Your task to perform on an android device: What's the weather? Image 0: 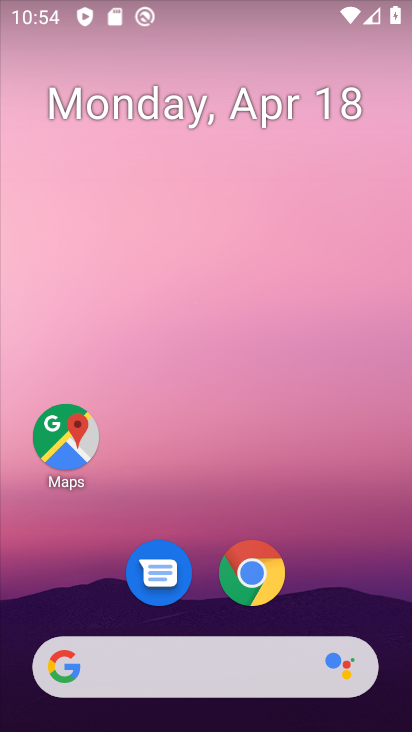
Step 0: drag from (321, 580) to (315, 97)
Your task to perform on an android device: What's the weather? Image 1: 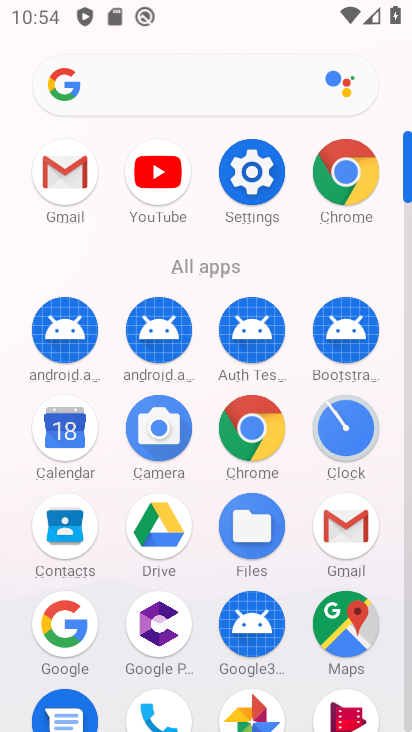
Step 1: click (346, 167)
Your task to perform on an android device: What's the weather? Image 2: 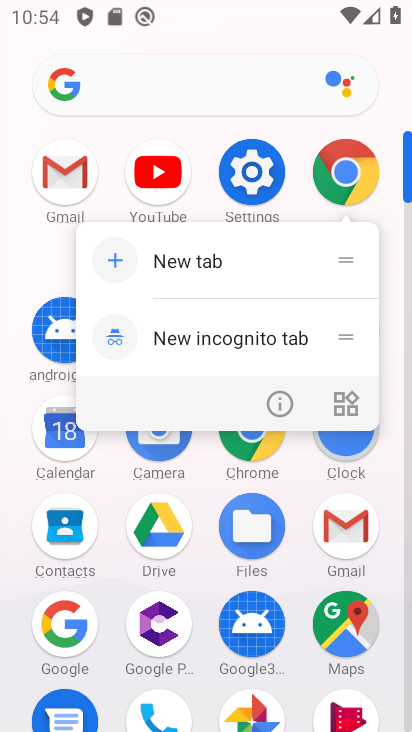
Step 2: click (346, 168)
Your task to perform on an android device: What's the weather? Image 3: 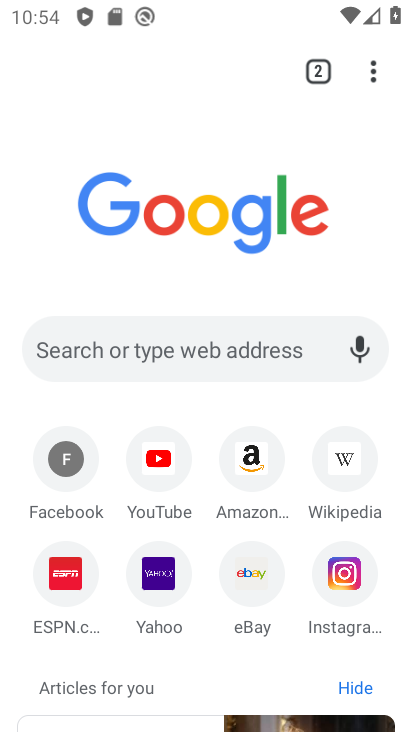
Step 3: click (231, 350)
Your task to perform on an android device: What's the weather? Image 4: 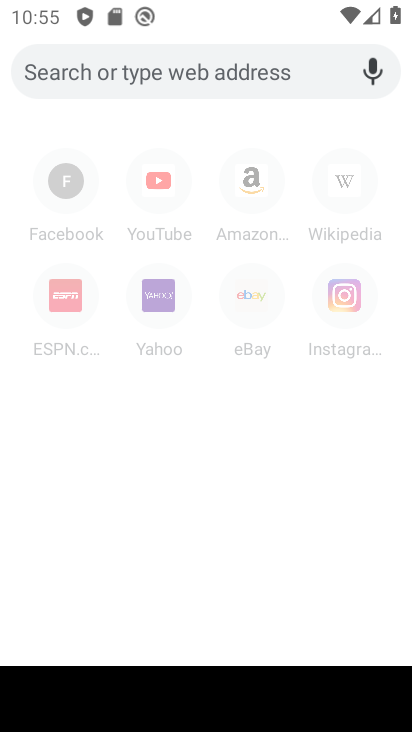
Step 4: type "What's the weather?"
Your task to perform on an android device: What's the weather? Image 5: 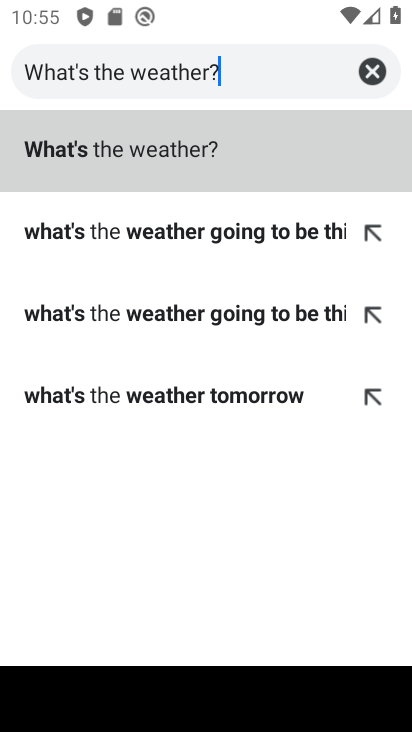
Step 5: click (117, 158)
Your task to perform on an android device: What's the weather? Image 6: 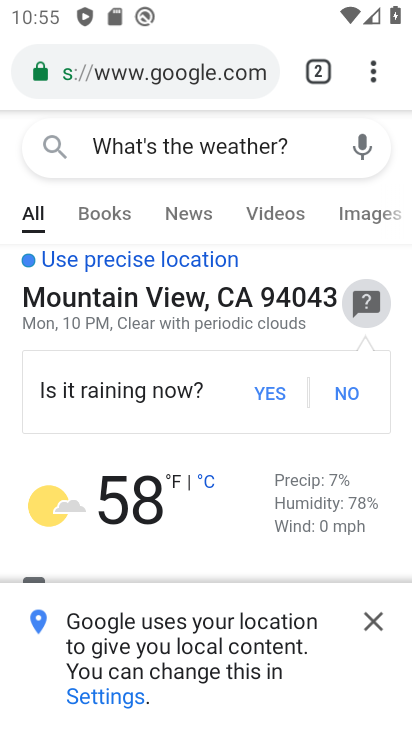
Step 6: task complete